Your task to perform on an android device: Search for the best rated headphones on amazon.com Image 0: 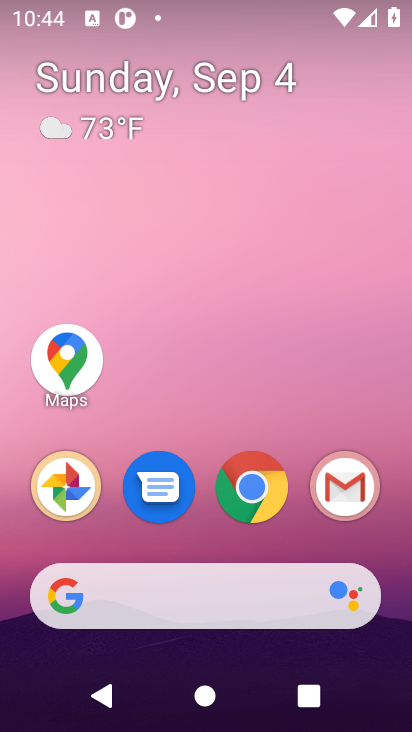
Step 0: click (141, 571)
Your task to perform on an android device: Search for the best rated headphones on amazon.com Image 1: 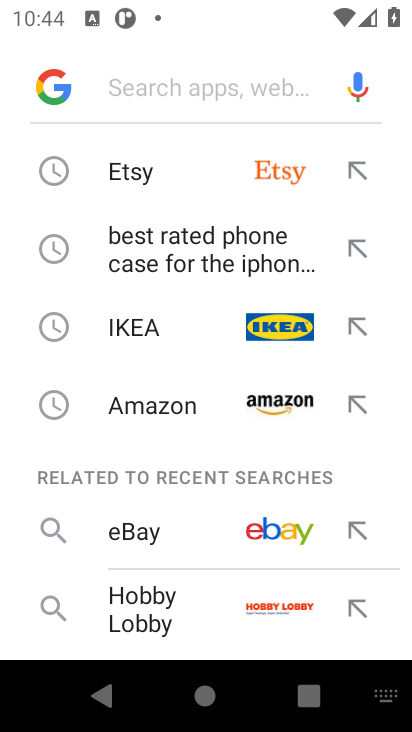
Step 1: click (139, 423)
Your task to perform on an android device: Search for the best rated headphones on amazon.com Image 2: 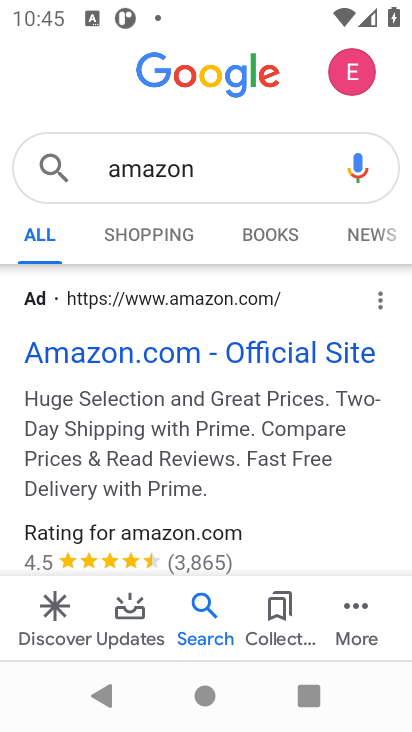
Step 2: click (188, 343)
Your task to perform on an android device: Search for the best rated headphones on amazon.com Image 3: 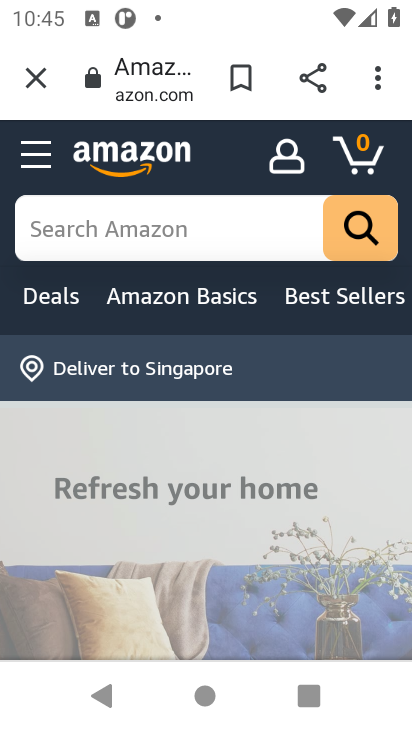
Step 3: click (145, 216)
Your task to perform on an android device: Search for the best rated headphones on amazon.com Image 4: 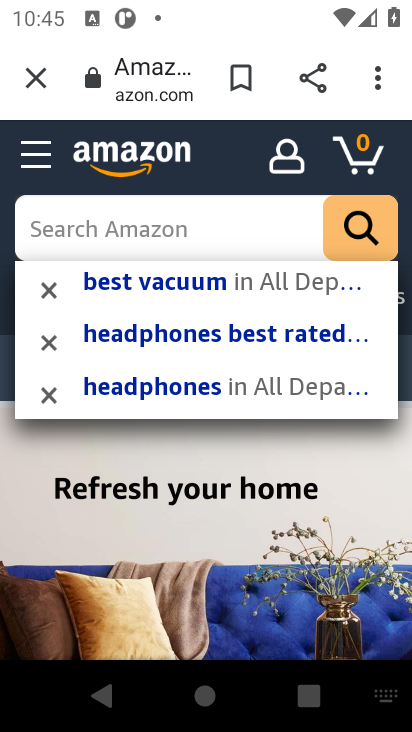
Step 4: type "best rated headphones"
Your task to perform on an android device: Search for the best rated headphones on amazon.com Image 5: 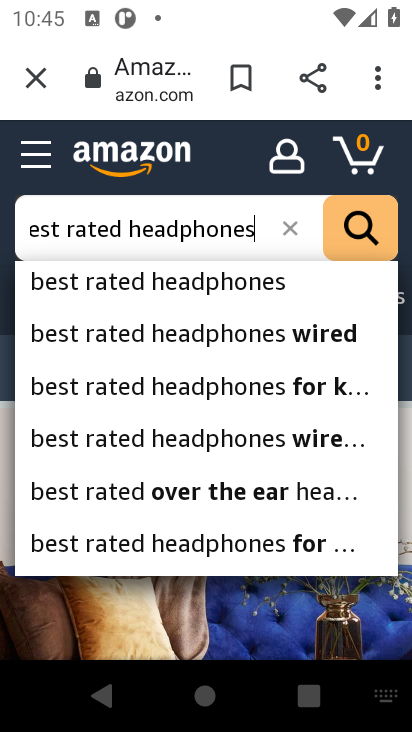
Step 5: click (360, 213)
Your task to perform on an android device: Search for the best rated headphones on amazon.com Image 6: 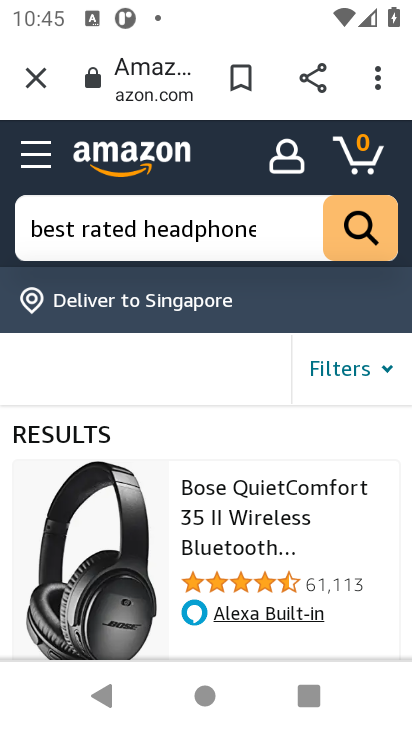
Step 6: task complete